Your task to perform on an android device: toggle translation in the chrome app Image 0: 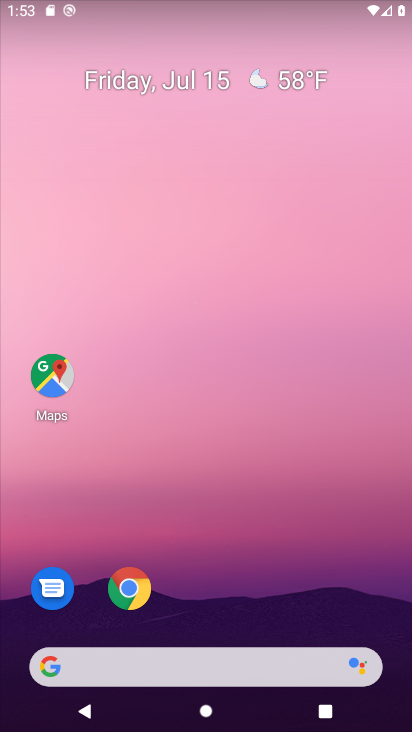
Step 0: click (145, 586)
Your task to perform on an android device: toggle translation in the chrome app Image 1: 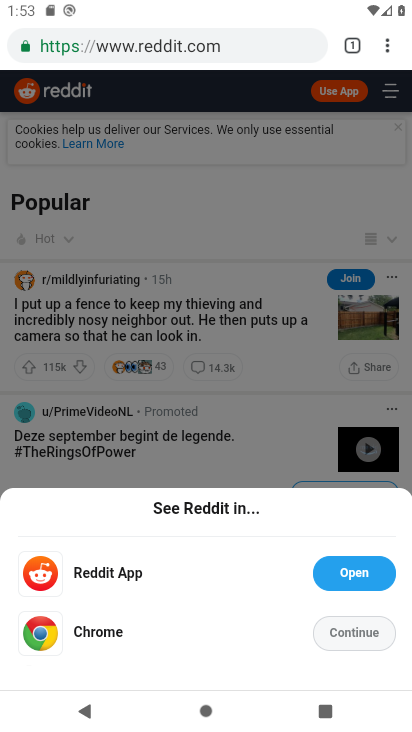
Step 1: click (393, 31)
Your task to perform on an android device: toggle translation in the chrome app Image 2: 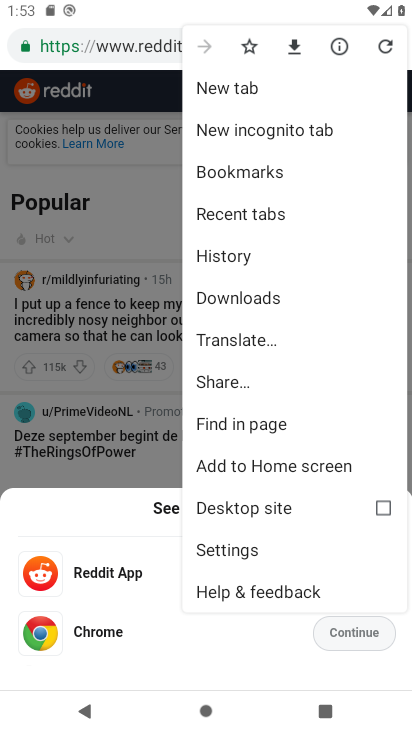
Step 2: click (250, 564)
Your task to perform on an android device: toggle translation in the chrome app Image 3: 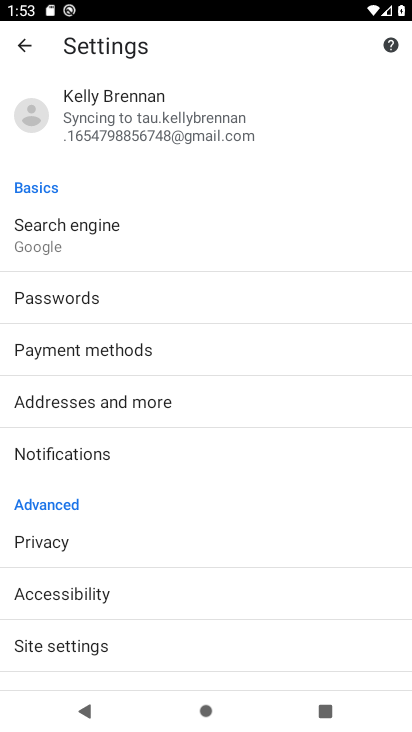
Step 3: drag from (132, 628) to (142, 460)
Your task to perform on an android device: toggle translation in the chrome app Image 4: 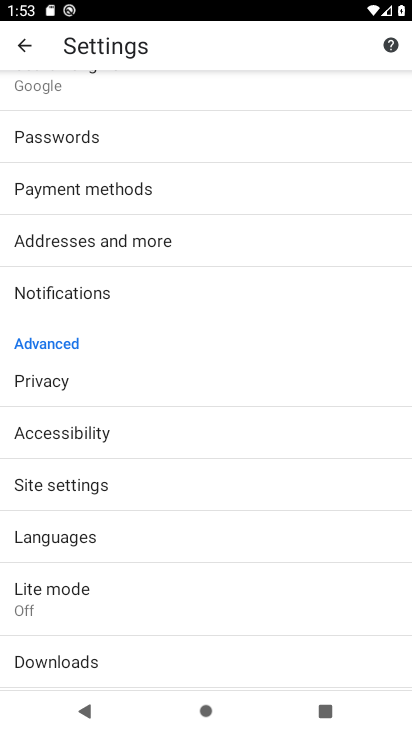
Step 4: click (117, 528)
Your task to perform on an android device: toggle translation in the chrome app Image 5: 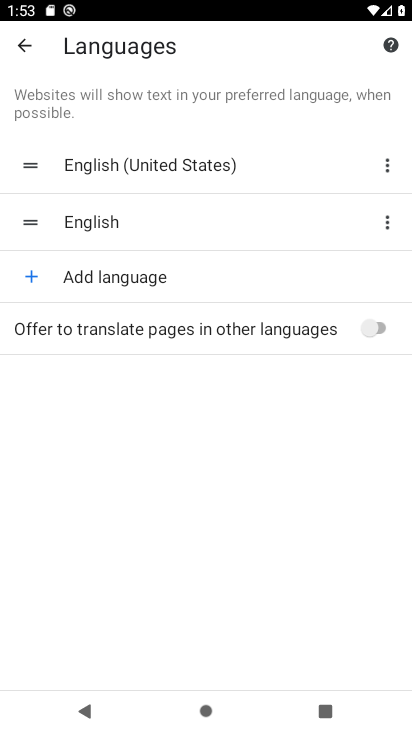
Step 5: click (373, 337)
Your task to perform on an android device: toggle translation in the chrome app Image 6: 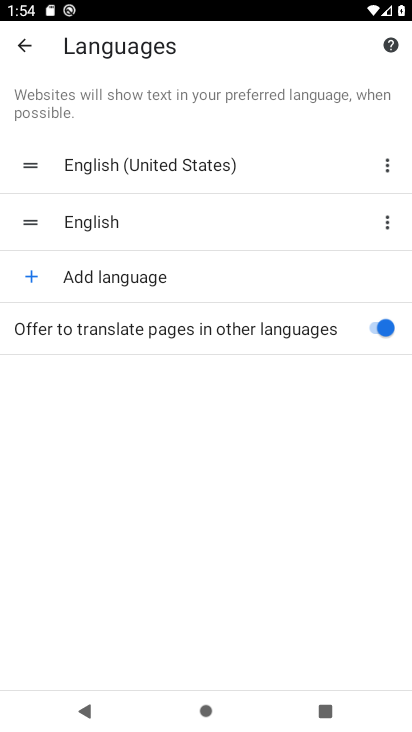
Step 6: task complete